Your task to perform on an android device: stop showing notifications on the lock screen Image 0: 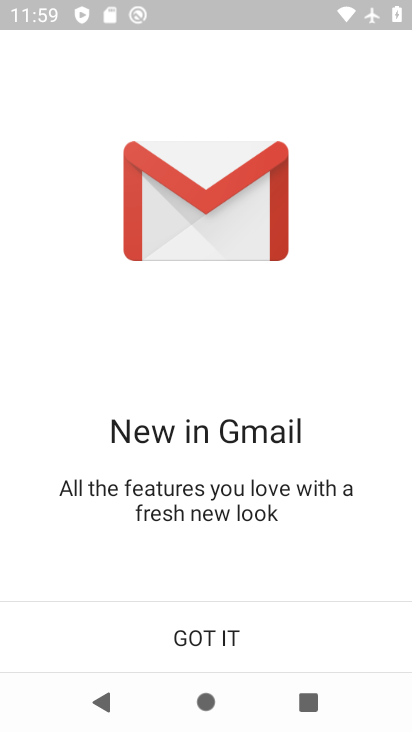
Step 0: press home button
Your task to perform on an android device: stop showing notifications on the lock screen Image 1: 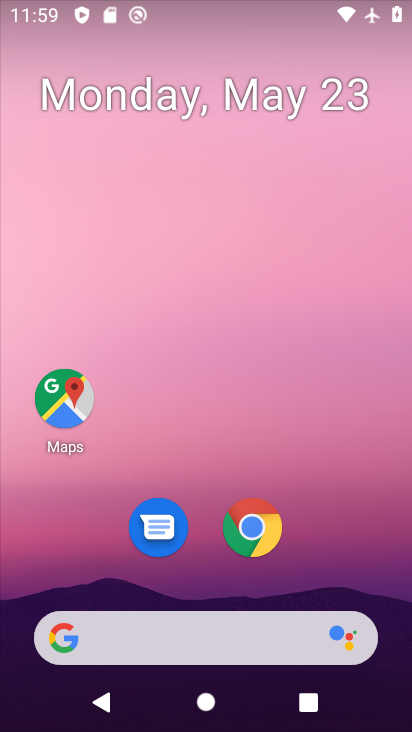
Step 1: drag from (230, 632) to (355, 146)
Your task to perform on an android device: stop showing notifications on the lock screen Image 2: 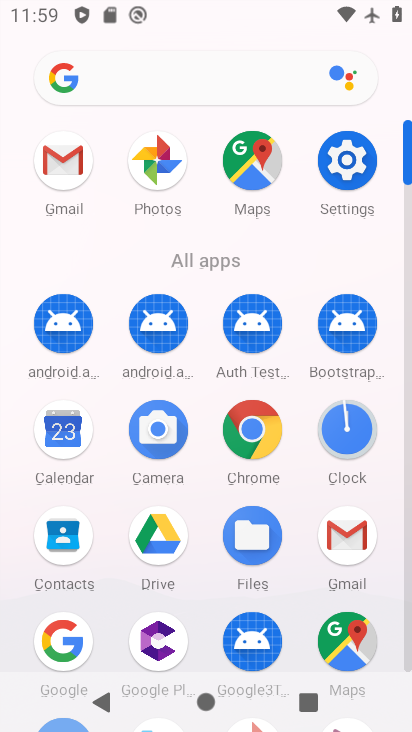
Step 2: click (351, 165)
Your task to perform on an android device: stop showing notifications on the lock screen Image 3: 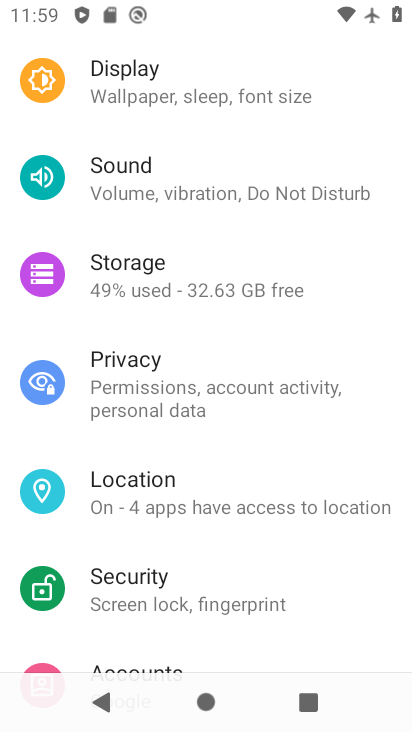
Step 3: drag from (282, 142) to (163, 587)
Your task to perform on an android device: stop showing notifications on the lock screen Image 4: 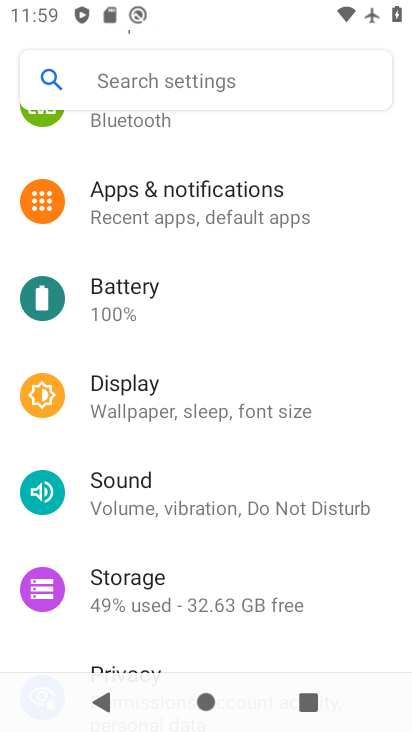
Step 4: click (238, 198)
Your task to perform on an android device: stop showing notifications on the lock screen Image 5: 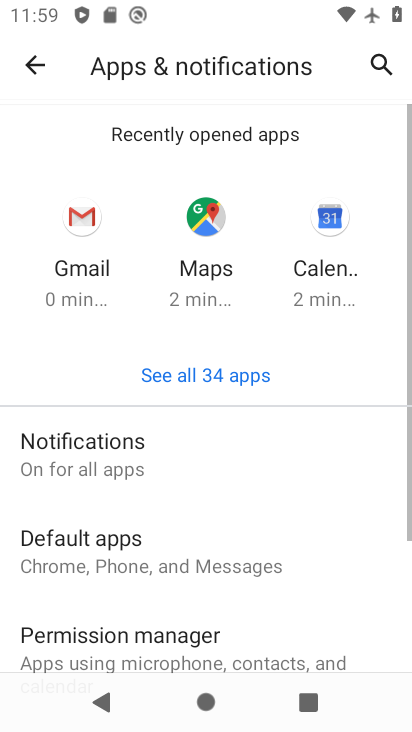
Step 5: click (123, 452)
Your task to perform on an android device: stop showing notifications on the lock screen Image 6: 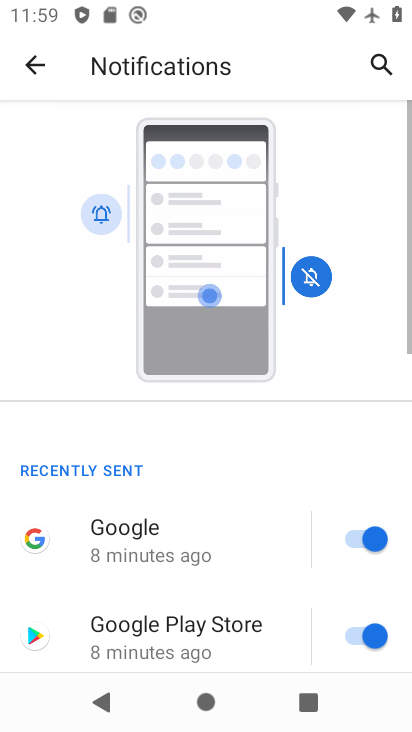
Step 6: drag from (207, 542) to (327, 37)
Your task to perform on an android device: stop showing notifications on the lock screen Image 7: 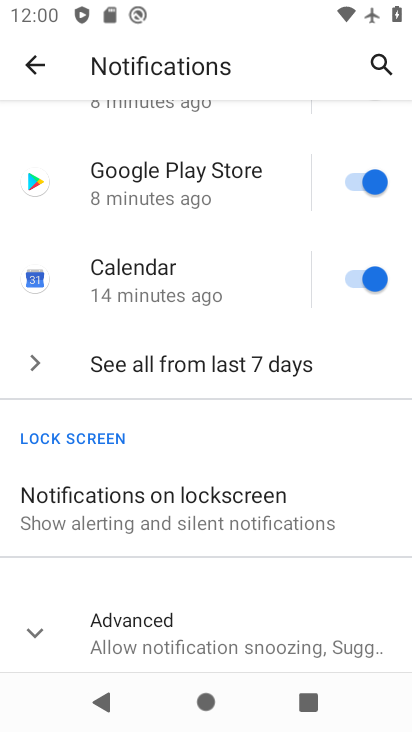
Step 7: click (221, 530)
Your task to perform on an android device: stop showing notifications on the lock screen Image 8: 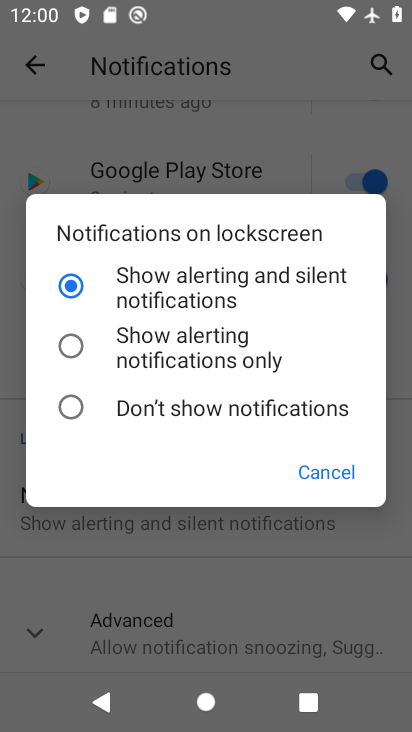
Step 8: click (70, 402)
Your task to perform on an android device: stop showing notifications on the lock screen Image 9: 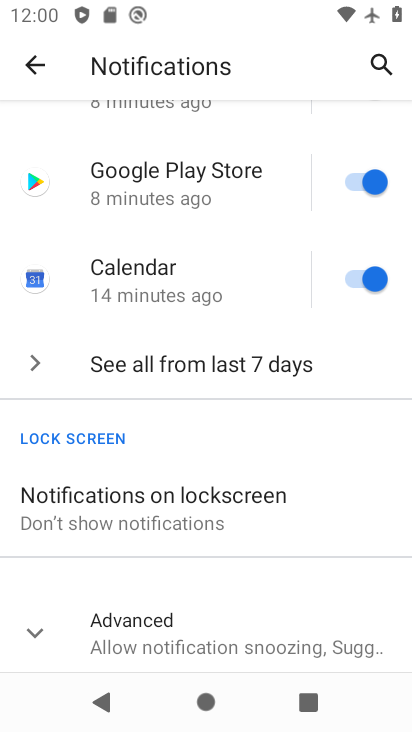
Step 9: task complete